Your task to perform on an android device: toggle pop-ups in chrome Image 0: 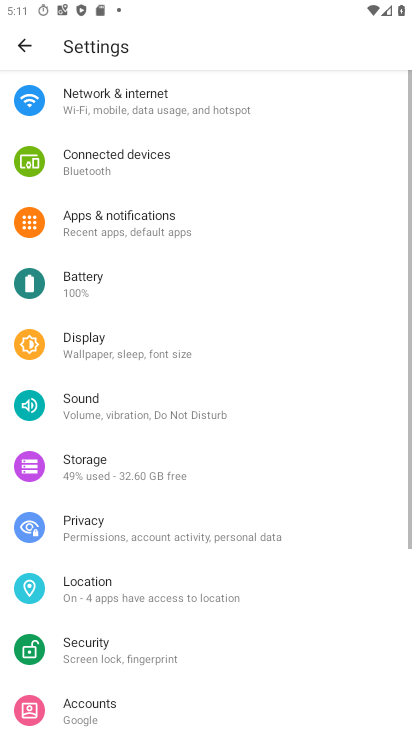
Step 0: press home button
Your task to perform on an android device: toggle pop-ups in chrome Image 1: 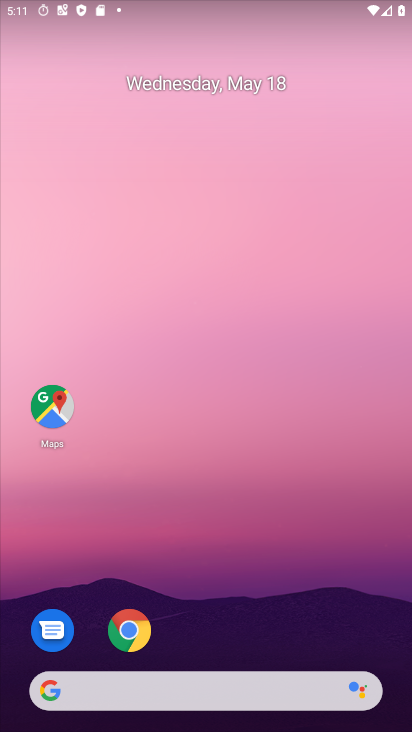
Step 1: click (129, 624)
Your task to perform on an android device: toggle pop-ups in chrome Image 2: 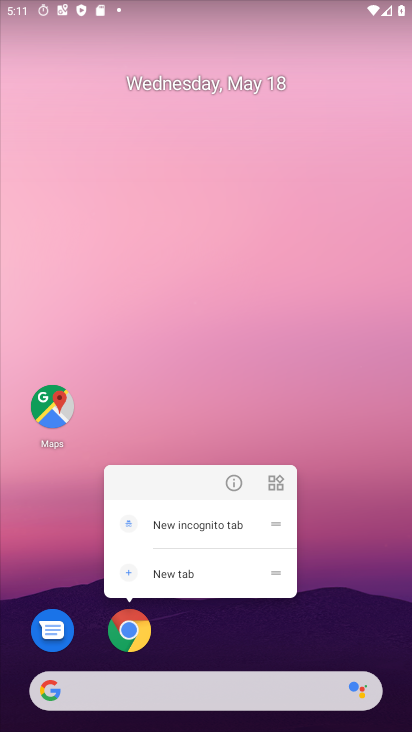
Step 2: click (131, 632)
Your task to perform on an android device: toggle pop-ups in chrome Image 3: 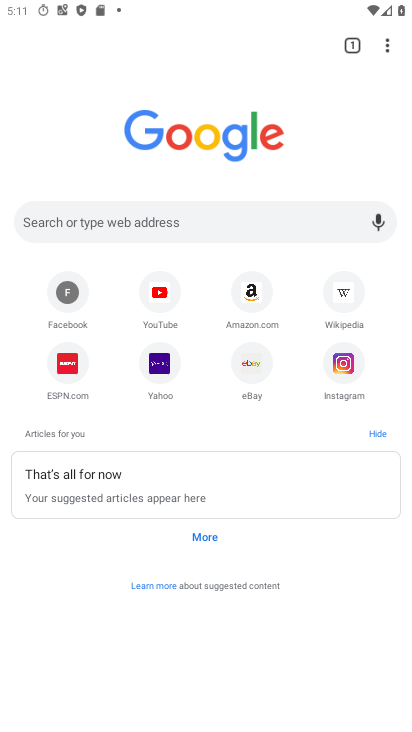
Step 3: click (385, 42)
Your task to perform on an android device: toggle pop-ups in chrome Image 4: 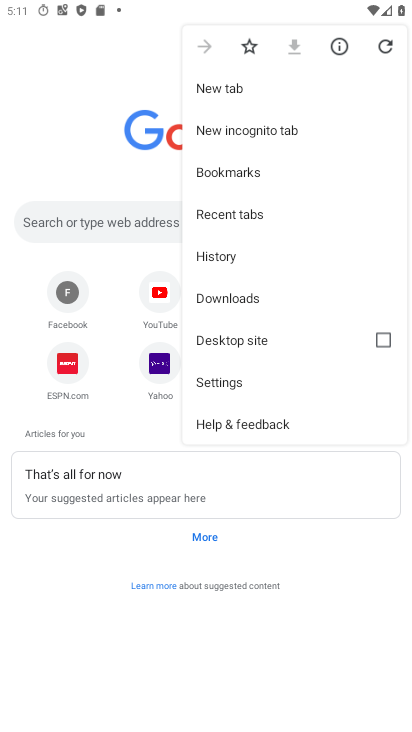
Step 4: click (210, 384)
Your task to perform on an android device: toggle pop-ups in chrome Image 5: 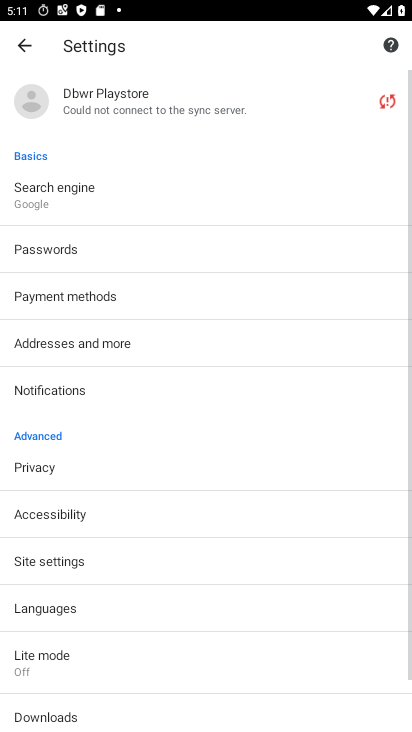
Step 5: drag from (114, 682) to (128, 235)
Your task to perform on an android device: toggle pop-ups in chrome Image 6: 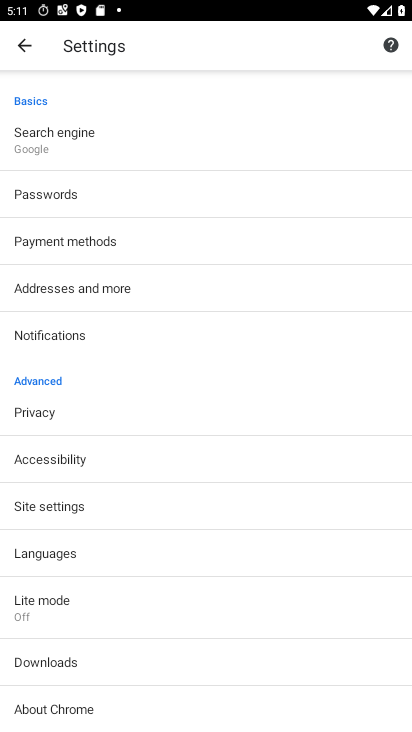
Step 6: click (33, 501)
Your task to perform on an android device: toggle pop-ups in chrome Image 7: 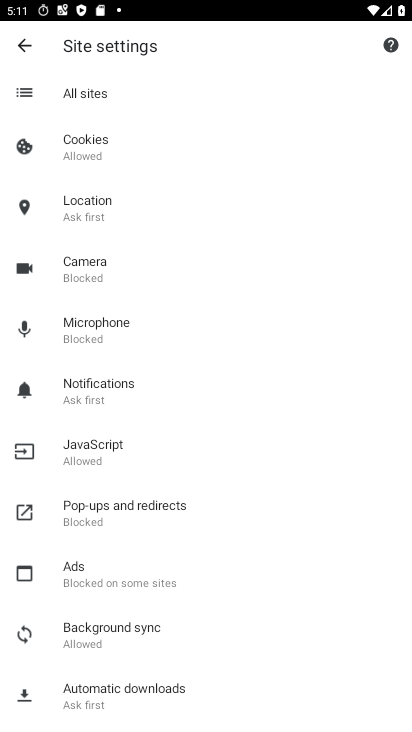
Step 7: click (109, 525)
Your task to perform on an android device: toggle pop-ups in chrome Image 8: 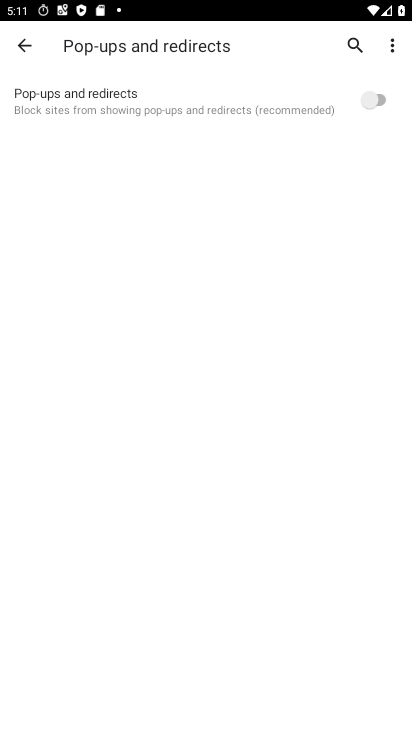
Step 8: click (384, 100)
Your task to perform on an android device: toggle pop-ups in chrome Image 9: 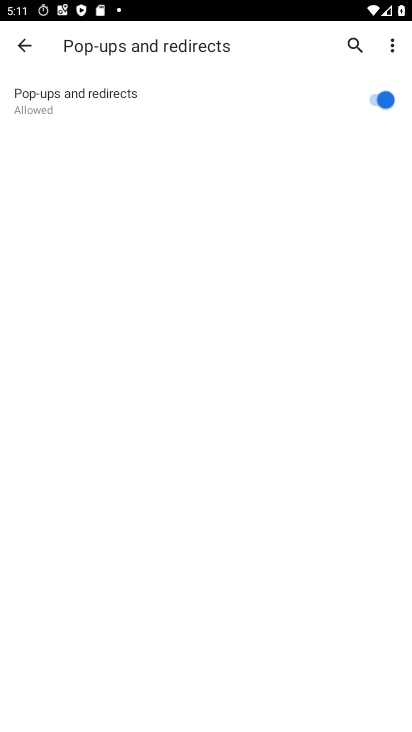
Step 9: task complete